Your task to perform on an android device: Open Chrome and go to settings Image 0: 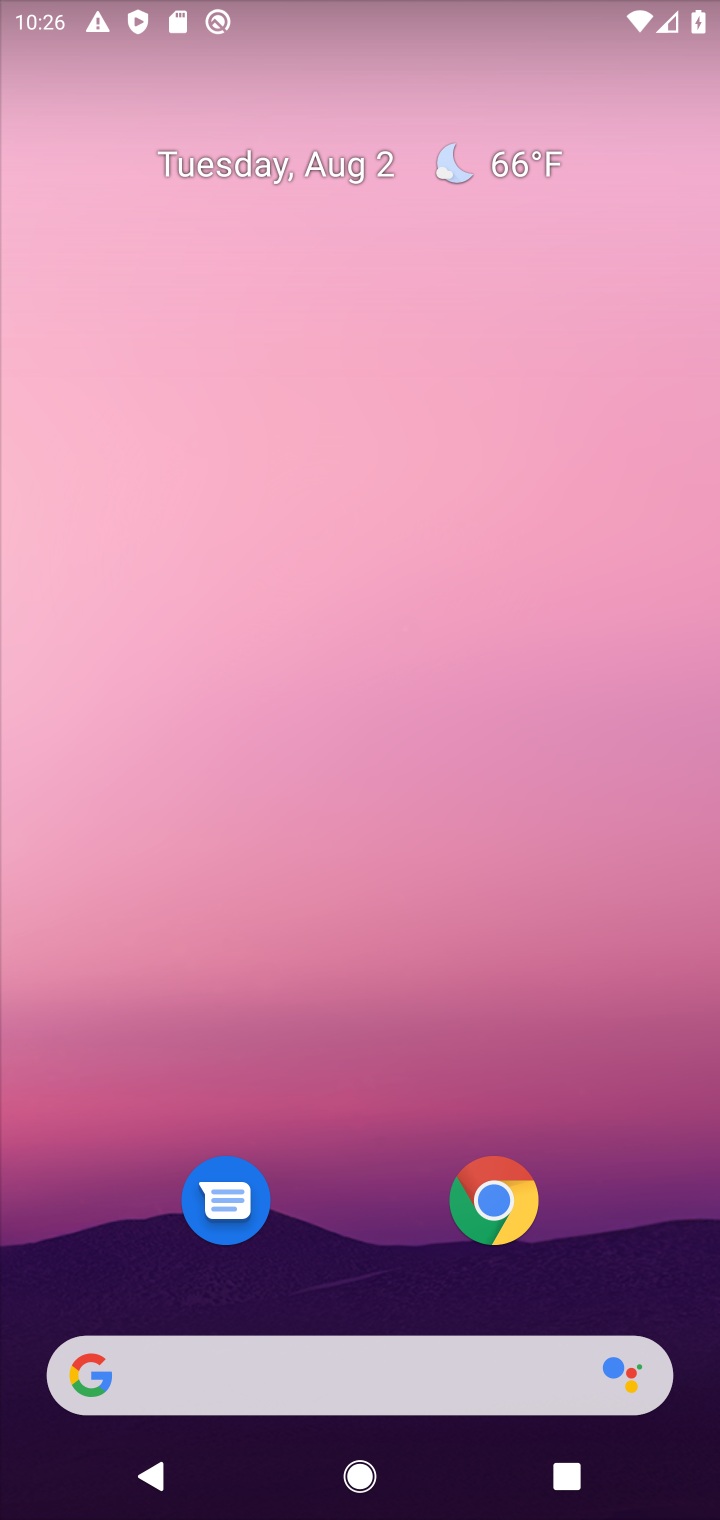
Step 0: click (490, 1206)
Your task to perform on an android device: Open Chrome and go to settings Image 1: 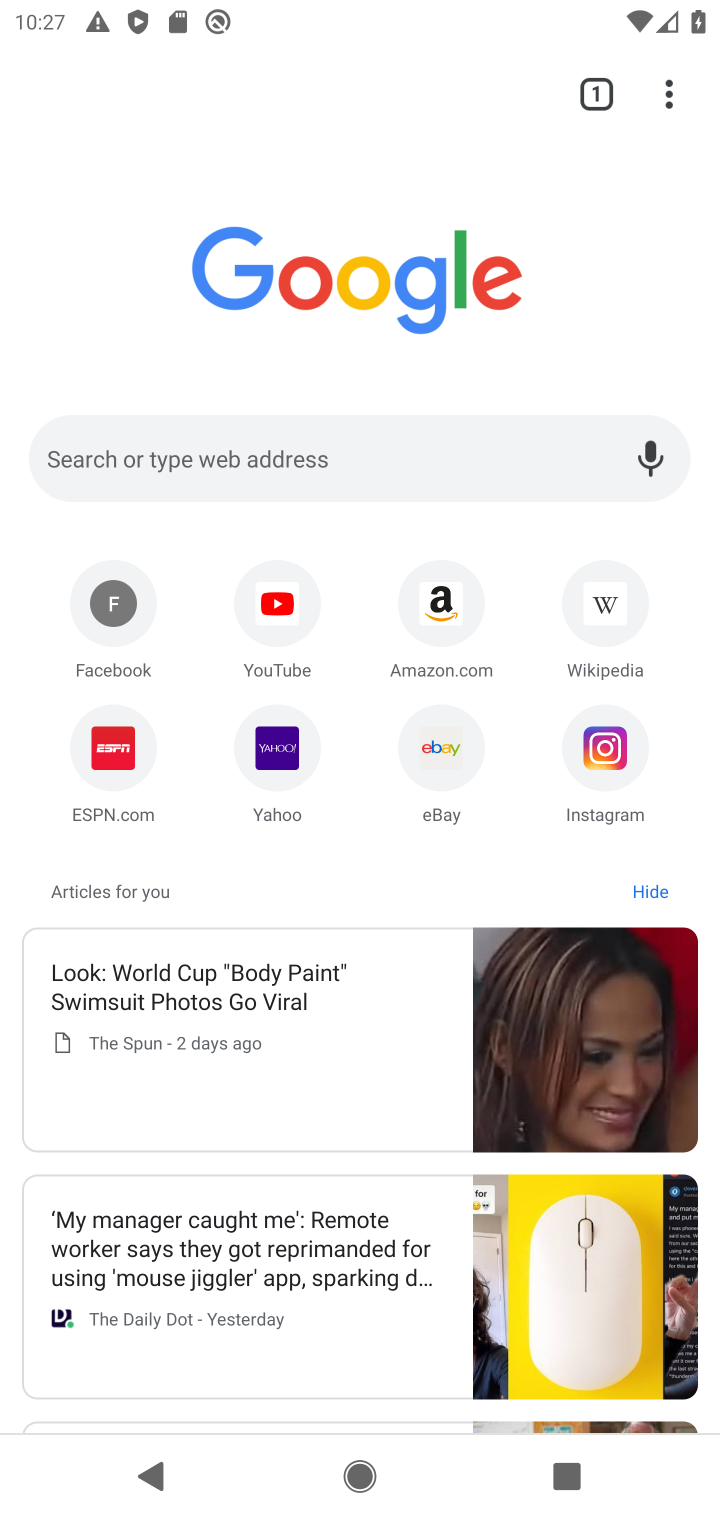
Step 1: click (667, 102)
Your task to perform on an android device: Open Chrome and go to settings Image 2: 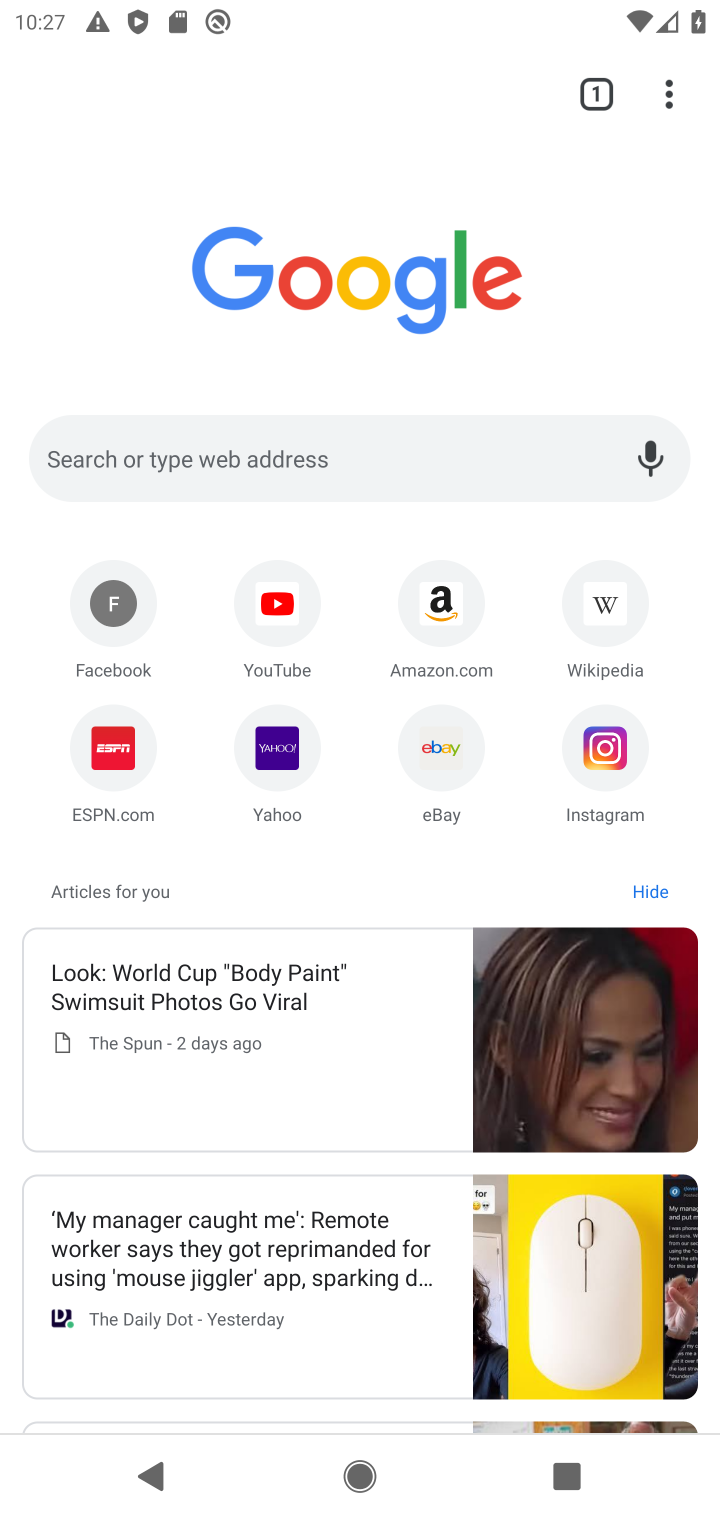
Step 2: click (669, 100)
Your task to perform on an android device: Open Chrome and go to settings Image 3: 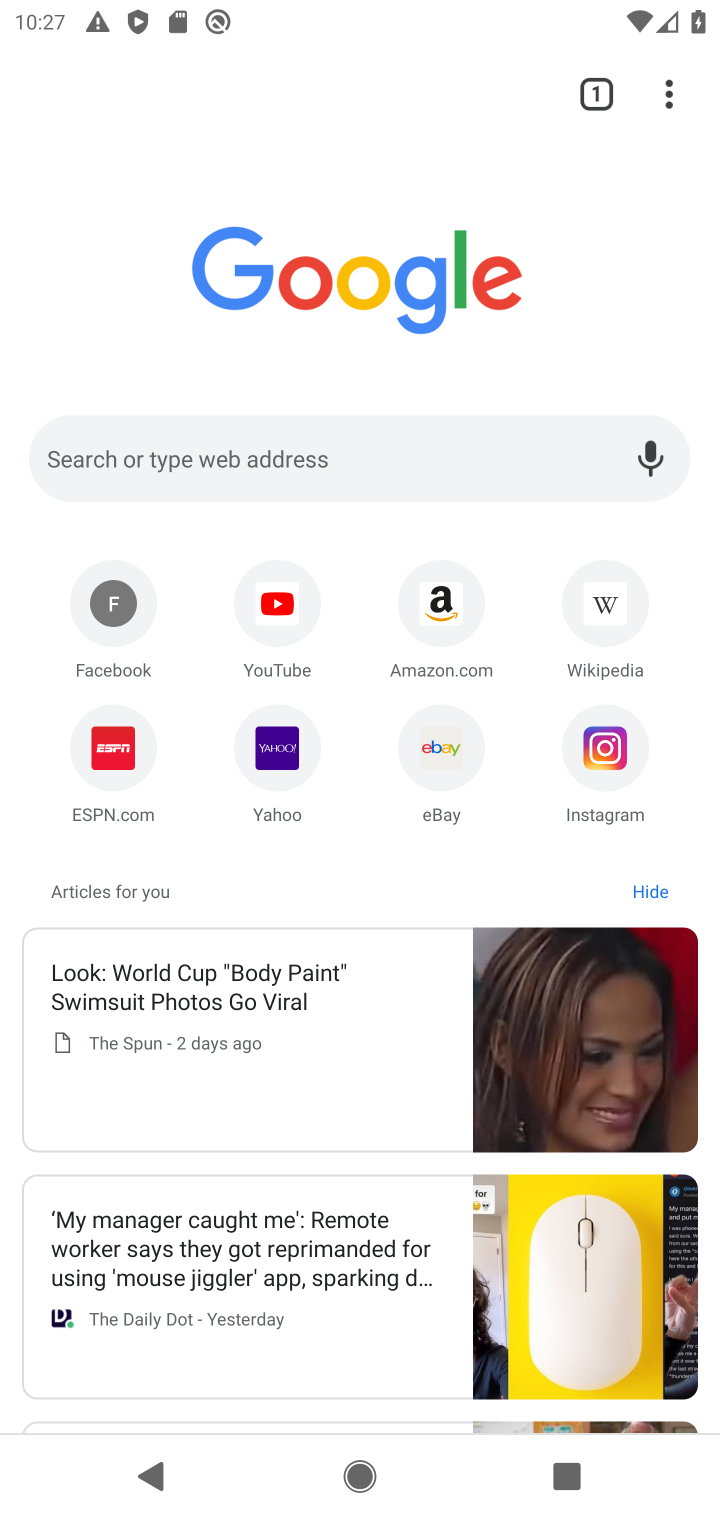
Step 3: click (673, 105)
Your task to perform on an android device: Open Chrome and go to settings Image 4: 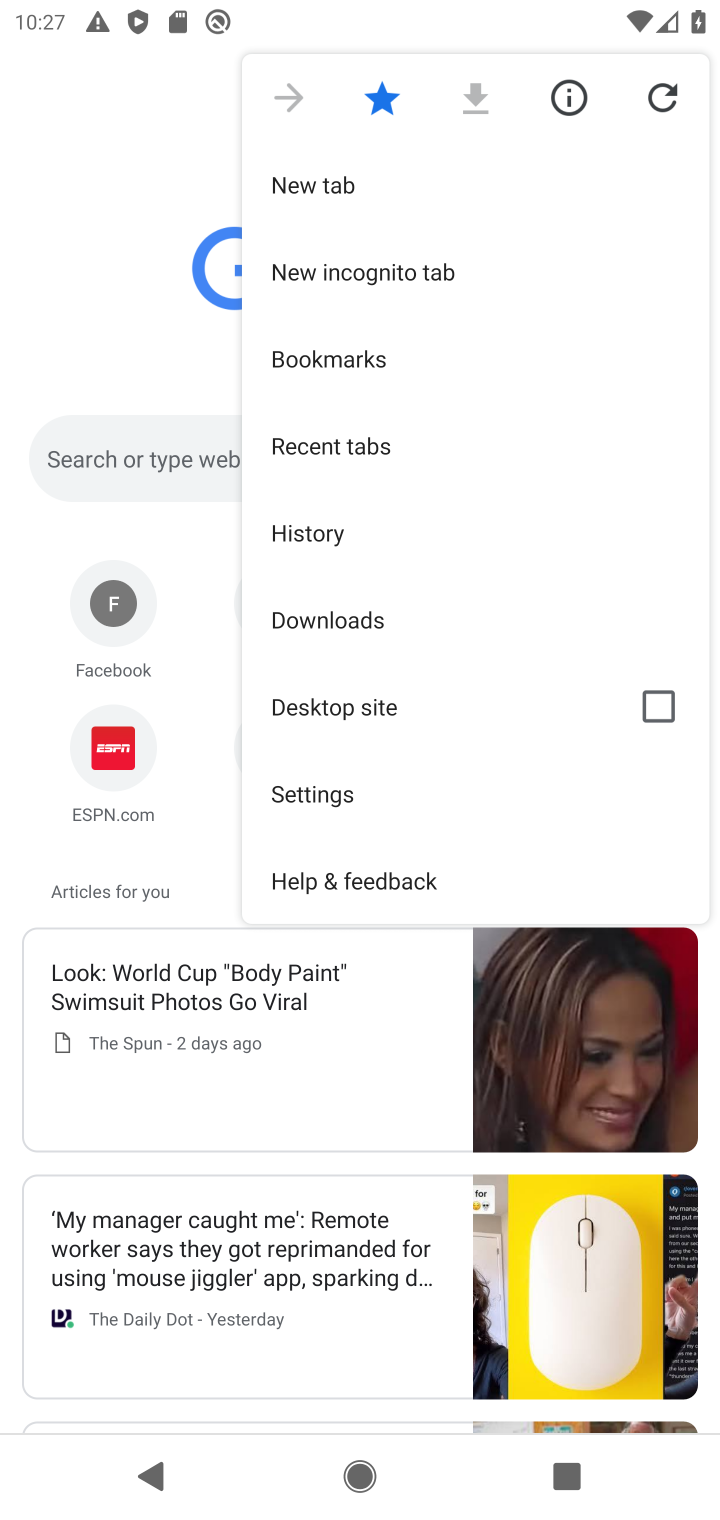
Step 4: click (298, 785)
Your task to perform on an android device: Open Chrome and go to settings Image 5: 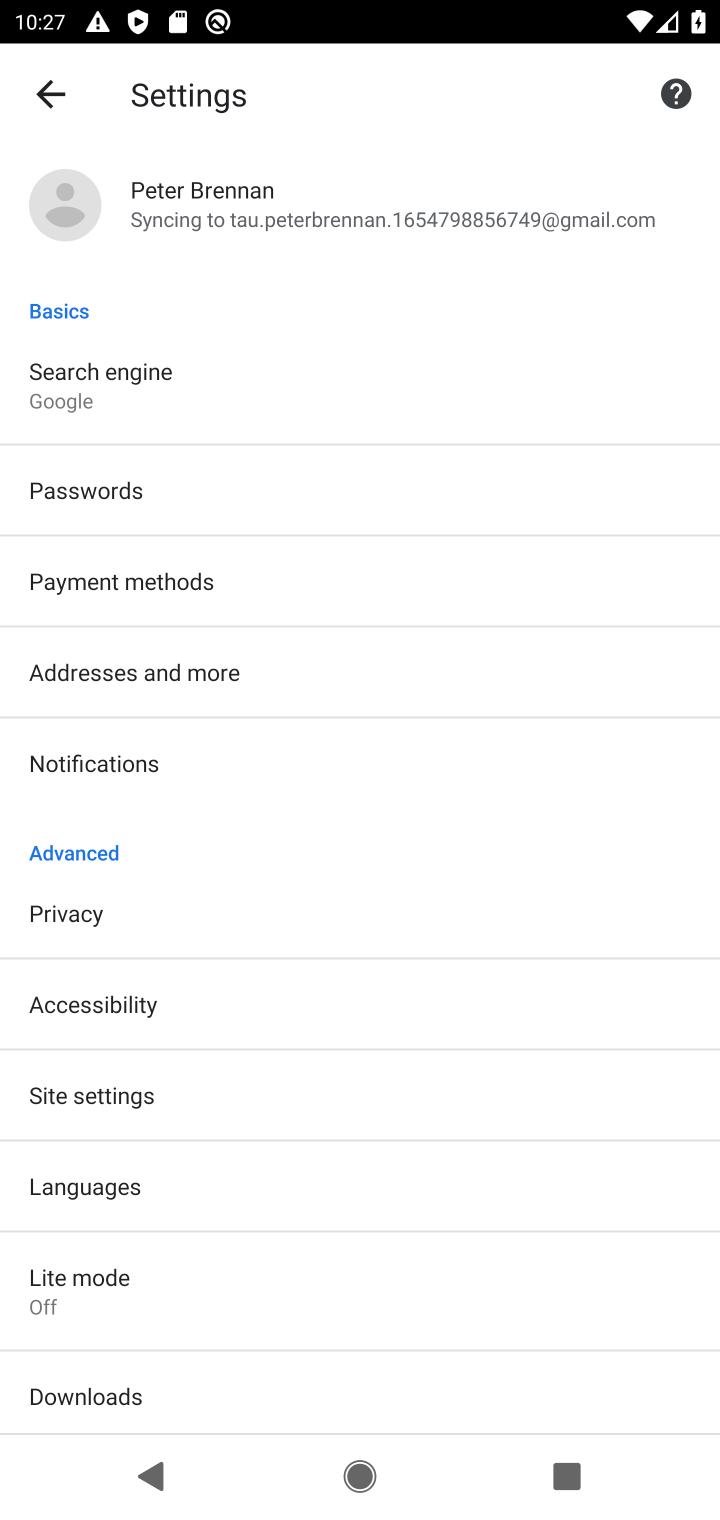
Step 5: task complete